Your task to perform on an android device: change text size in settings app Image 0: 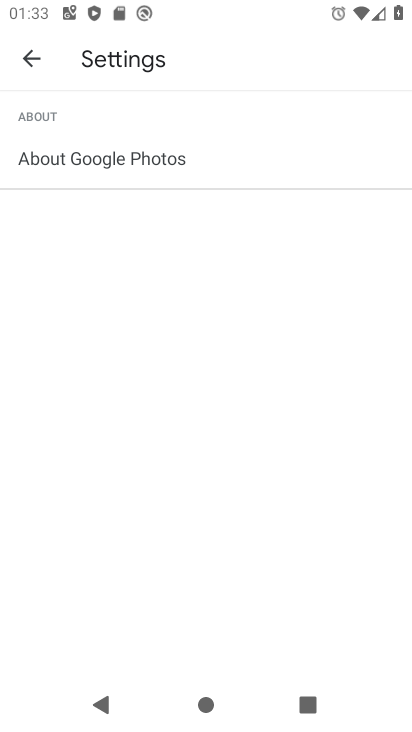
Step 0: press home button
Your task to perform on an android device: change text size in settings app Image 1: 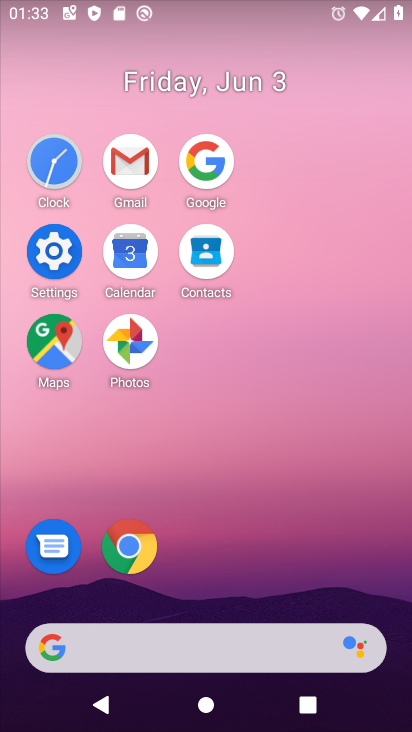
Step 1: click (52, 246)
Your task to perform on an android device: change text size in settings app Image 2: 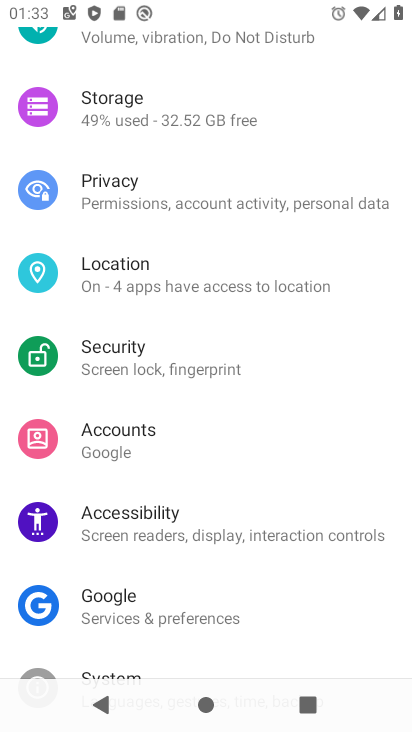
Step 2: drag from (242, 213) to (260, 558)
Your task to perform on an android device: change text size in settings app Image 3: 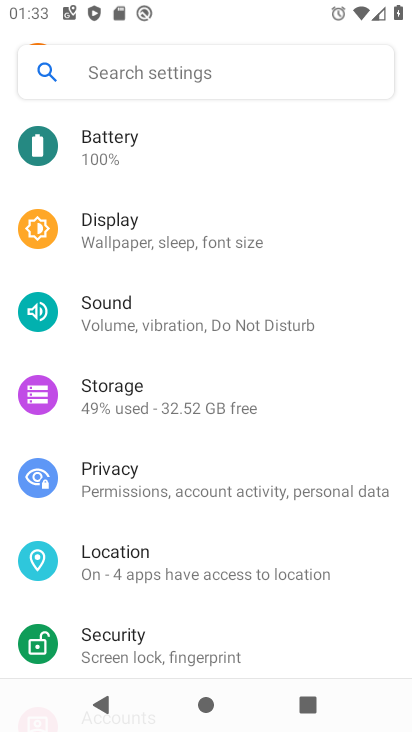
Step 3: click (217, 244)
Your task to perform on an android device: change text size in settings app Image 4: 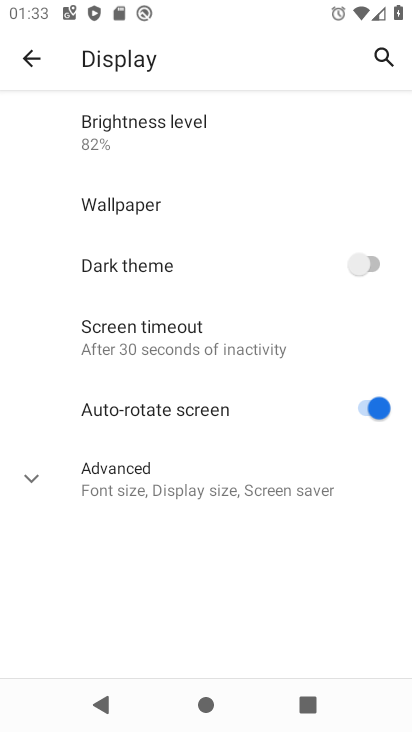
Step 4: click (198, 469)
Your task to perform on an android device: change text size in settings app Image 5: 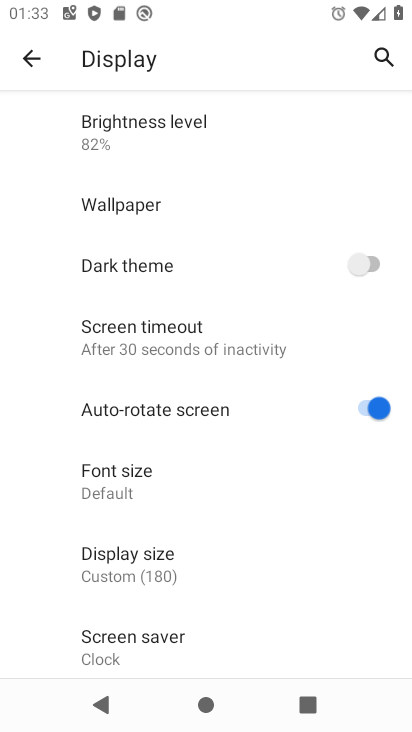
Step 5: click (152, 489)
Your task to perform on an android device: change text size in settings app Image 6: 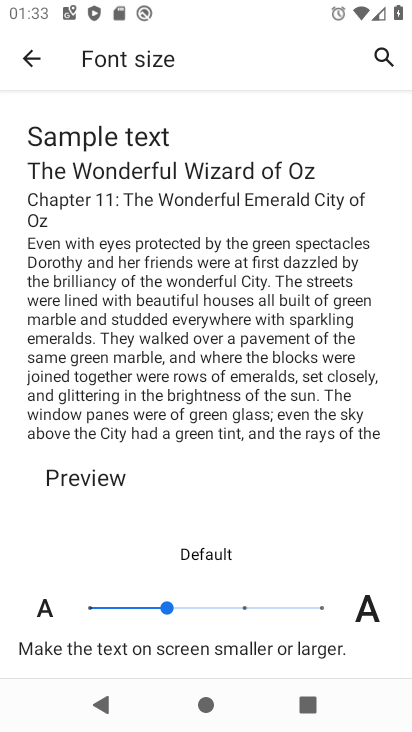
Step 6: click (90, 606)
Your task to perform on an android device: change text size in settings app Image 7: 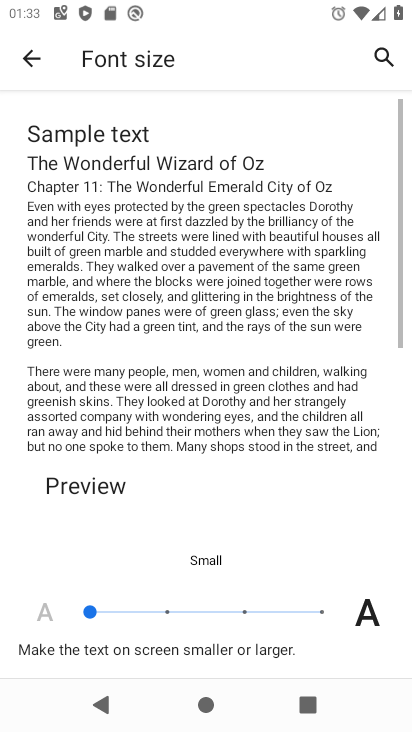
Step 7: task complete